Your task to perform on an android device: turn notification dots on Image 0: 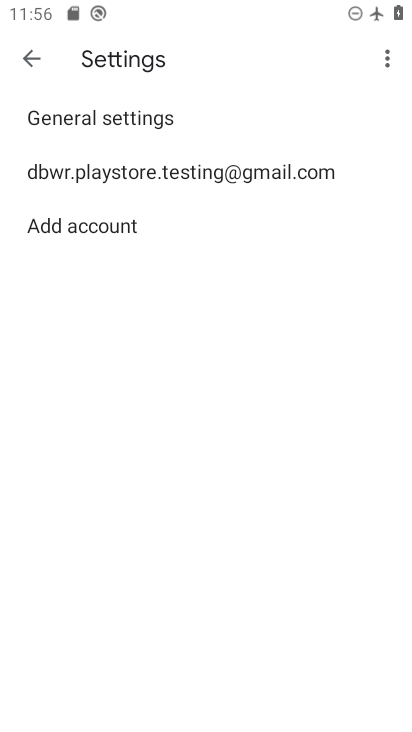
Step 0: press home button
Your task to perform on an android device: turn notification dots on Image 1: 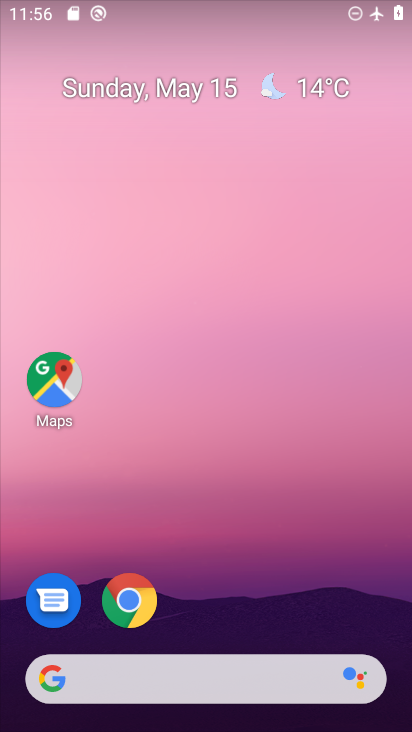
Step 1: drag from (387, 610) to (268, 136)
Your task to perform on an android device: turn notification dots on Image 2: 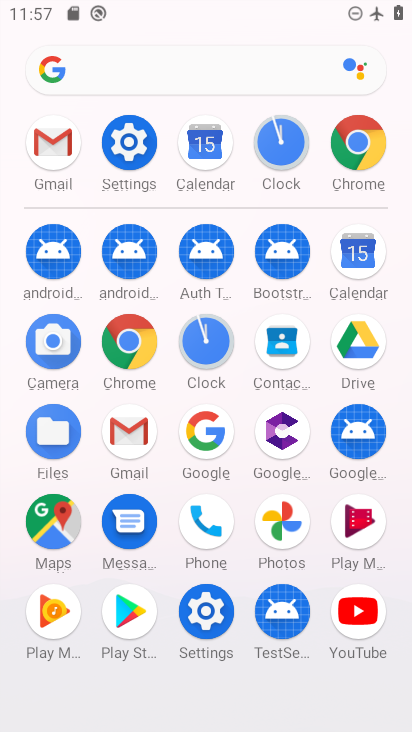
Step 2: click (207, 607)
Your task to perform on an android device: turn notification dots on Image 3: 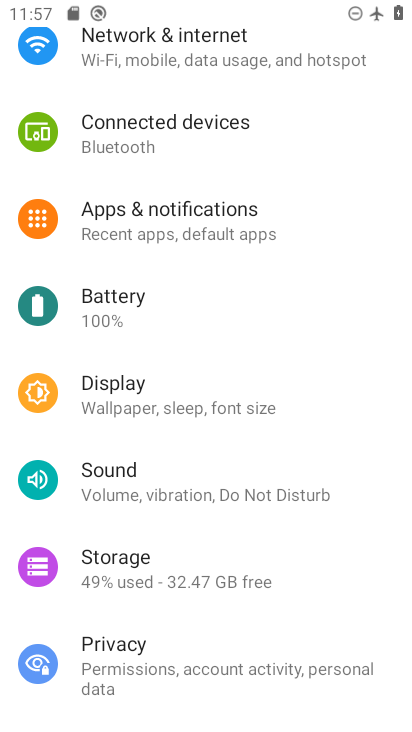
Step 3: click (162, 216)
Your task to perform on an android device: turn notification dots on Image 4: 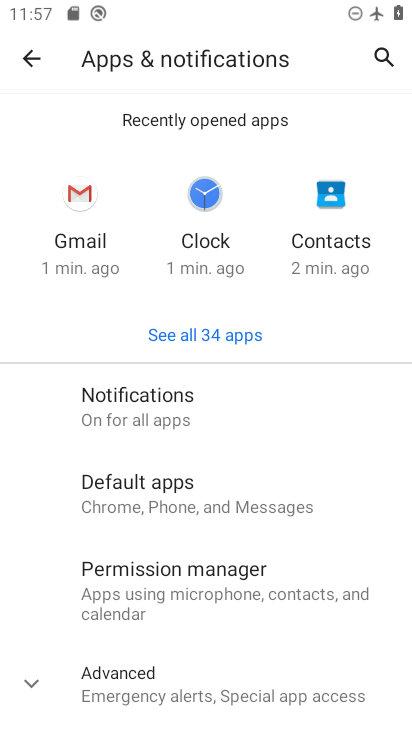
Step 4: click (137, 404)
Your task to perform on an android device: turn notification dots on Image 5: 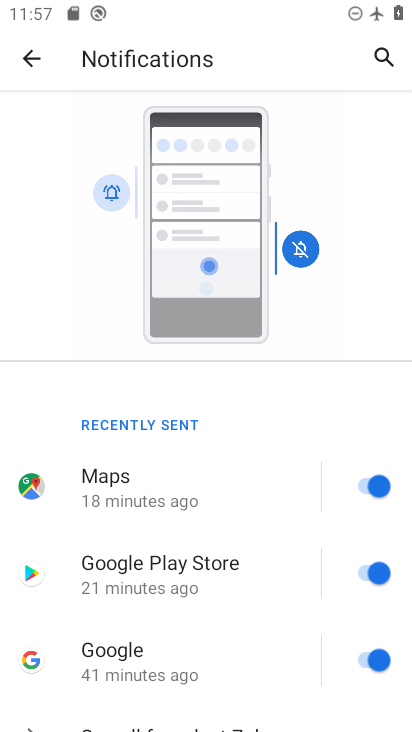
Step 5: drag from (274, 685) to (292, 151)
Your task to perform on an android device: turn notification dots on Image 6: 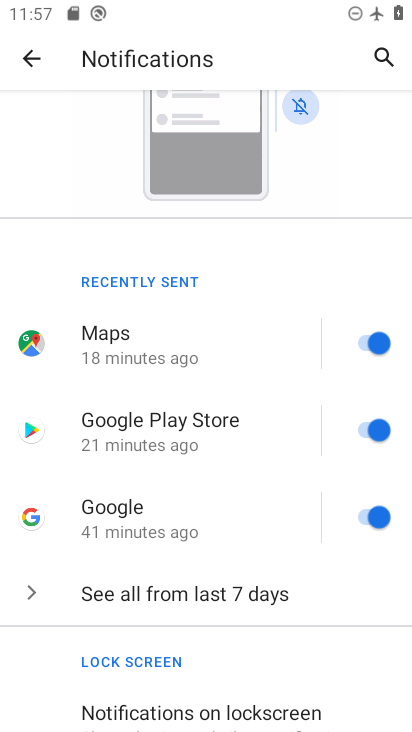
Step 6: drag from (320, 629) to (308, 152)
Your task to perform on an android device: turn notification dots on Image 7: 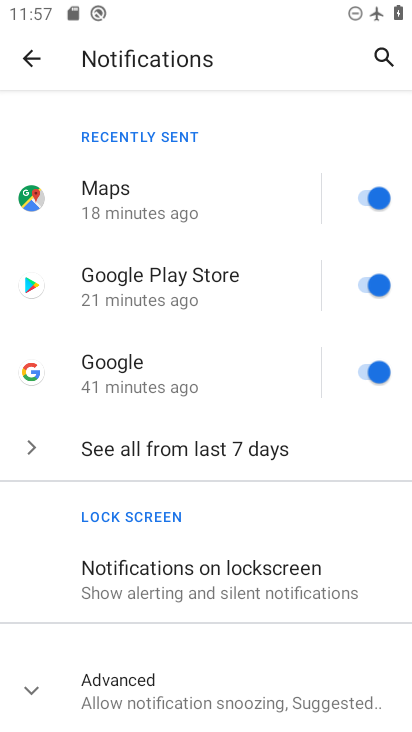
Step 7: click (41, 682)
Your task to perform on an android device: turn notification dots on Image 8: 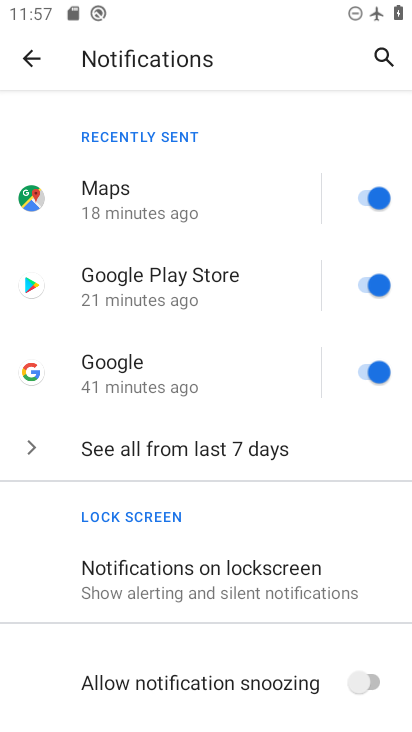
Step 8: task complete